Your task to perform on an android device: Open sound settings Image 0: 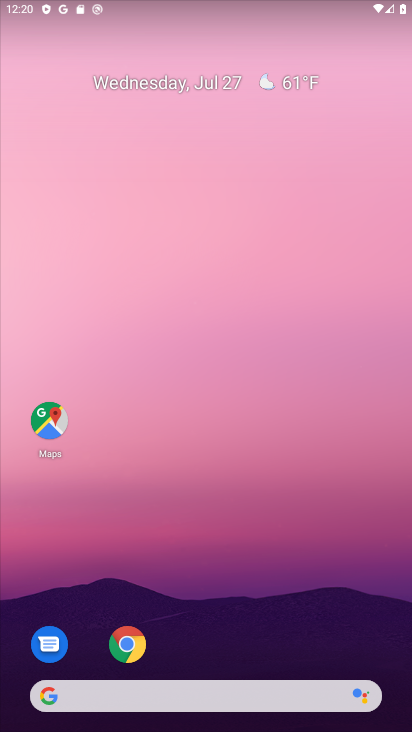
Step 0: drag from (202, 527) to (295, 151)
Your task to perform on an android device: Open sound settings Image 1: 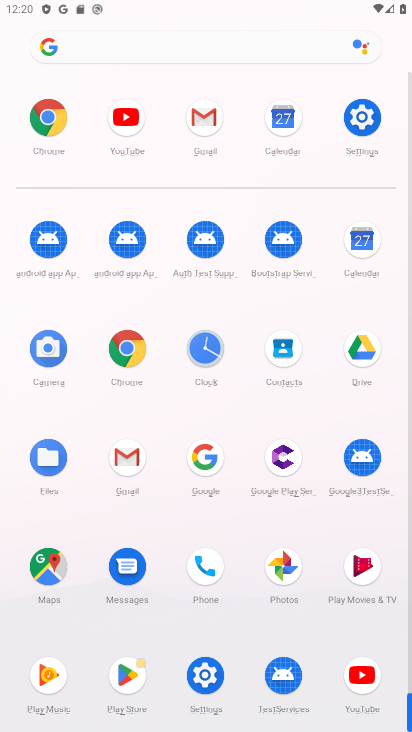
Step 1: click (209, 671)
Your task to perform on an android device: Open sound settings Image 2: 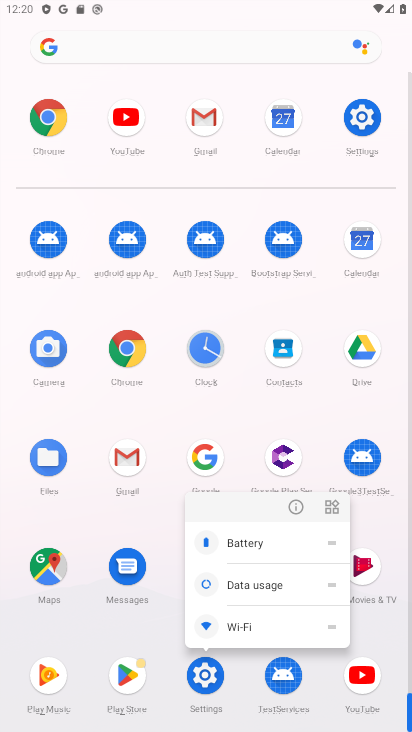
Step 2: click (298, 507)
Your task to perform on an android device: Open sound settings Image 3: 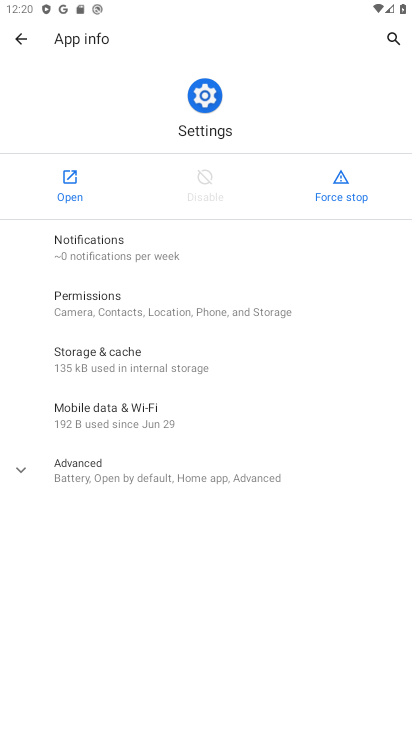
Step 3: click (60, 164)
Your task to perform on an android device: Open sound settings Image 4: 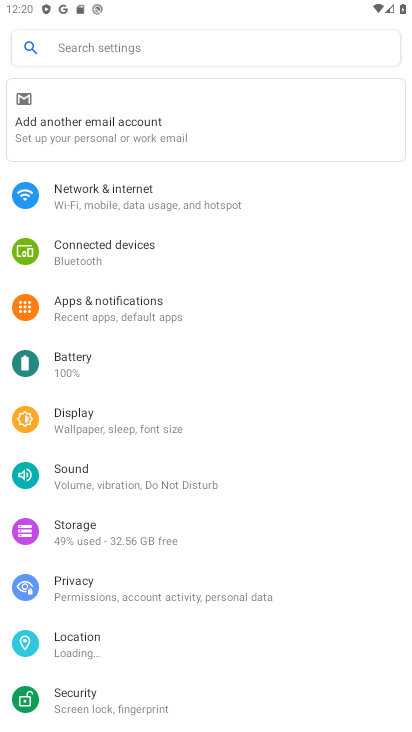
Step 4: click (98, 469)
Your task to perform on an android device: Open sound settings Image 5: 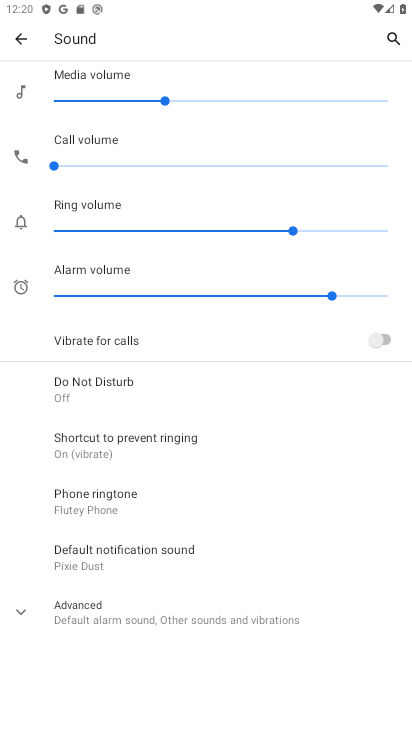
Step 5: click (227, 564)
Your task to perform on an android device: Open sound settings Image 6: 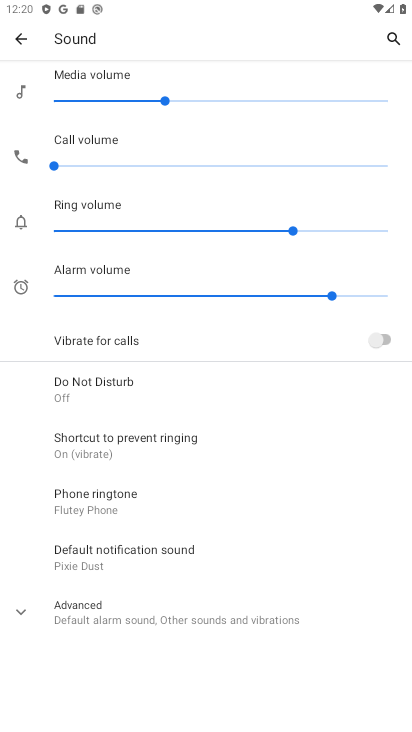
Step 6: task complete